Your task to perform on an android device: Google the capital of Venezuela Image 0: 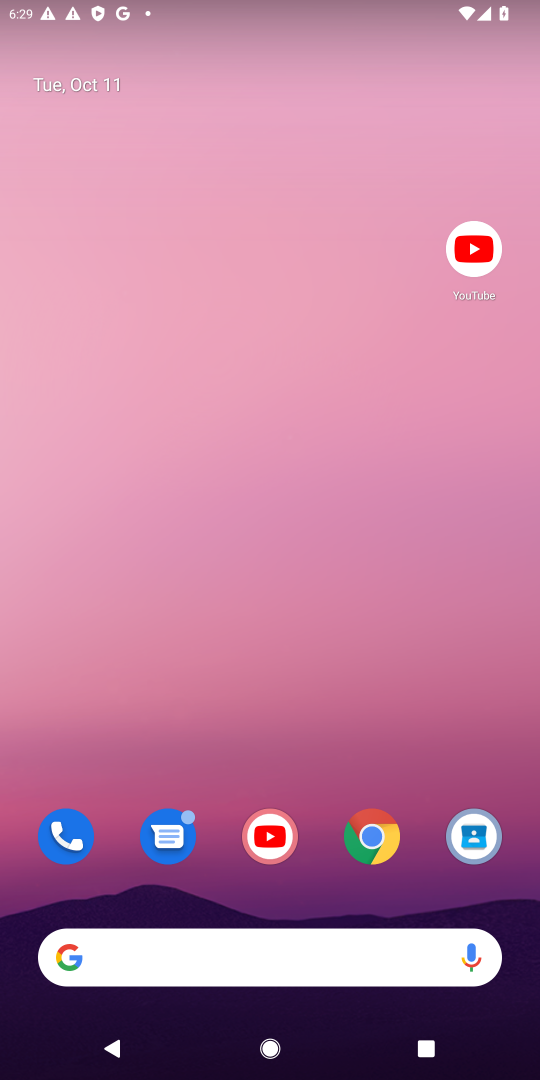
Step 0: click (375, 837)
Your task to perform on an android device: Google the capital of Venezuela Image 1: 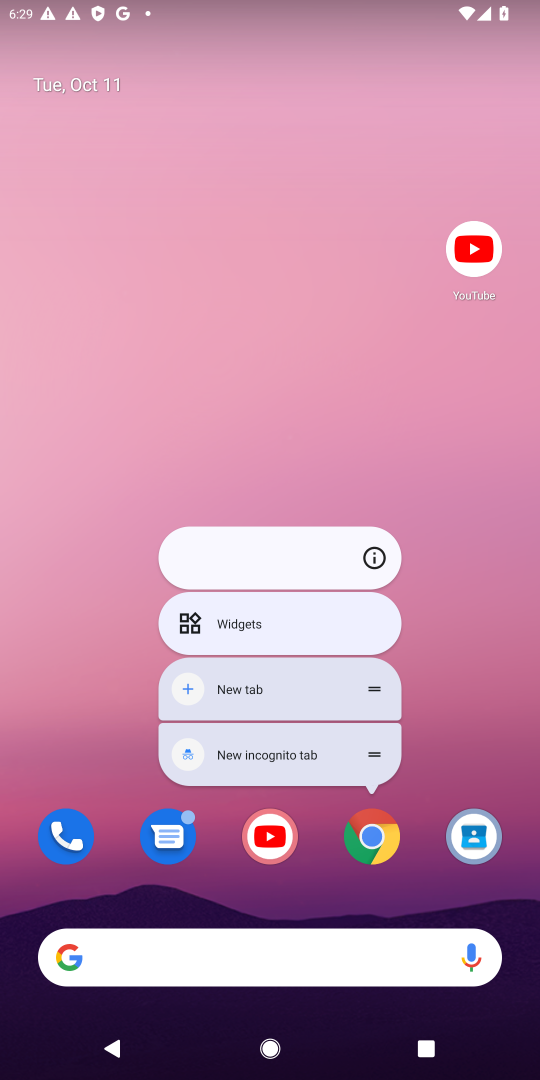
Step 1: click (365, 845)
Your task to perform on an android device: Google the capital of Venezuela Image 2: 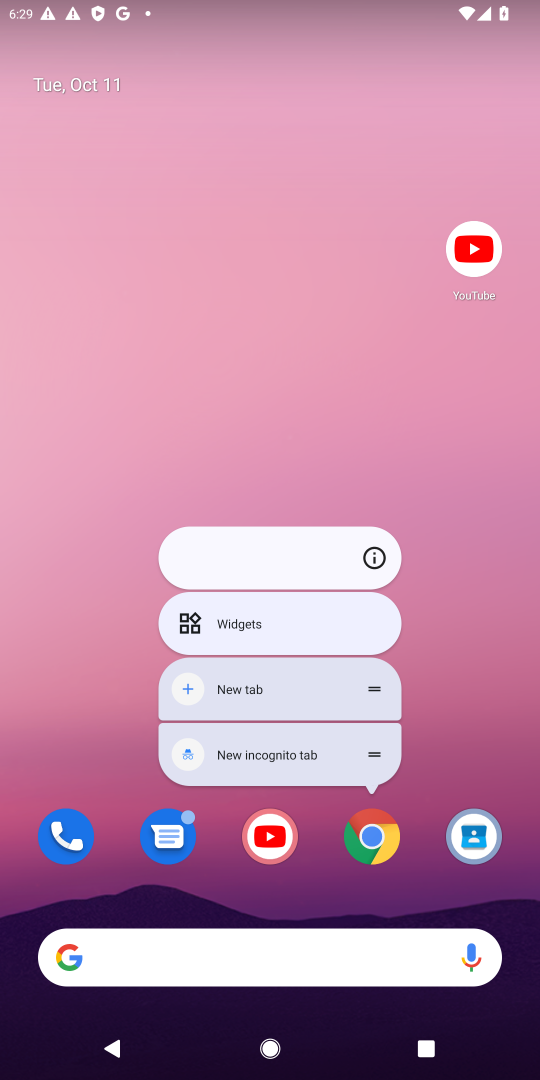
Step 2: click (384, 826)
Your task to perform on an android device: Google the capital of Venezuela Image 3: 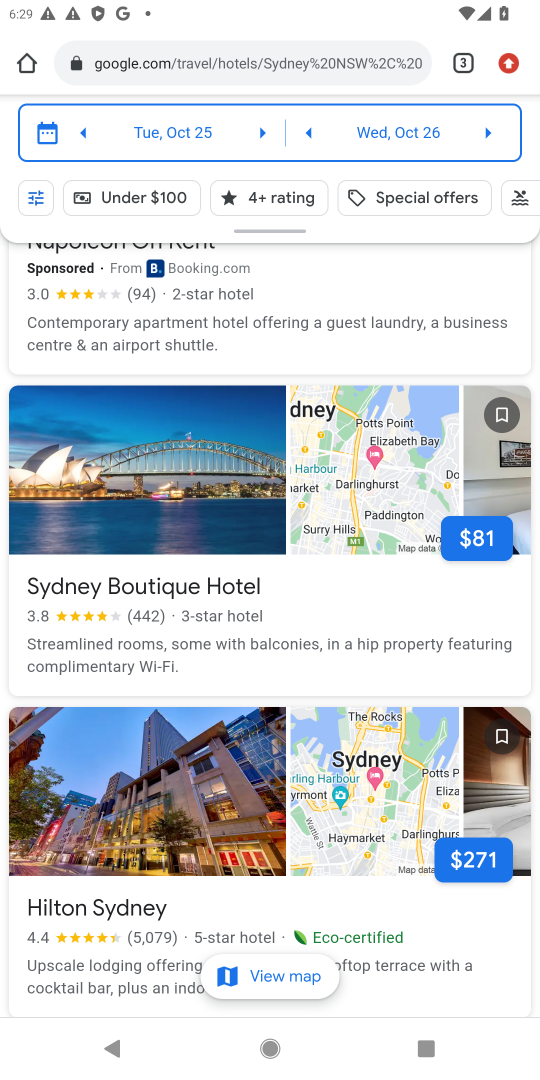
Step 3: click (326, 63)
Your task to perform on an android device: Google the capital of Venezuela Image 4: 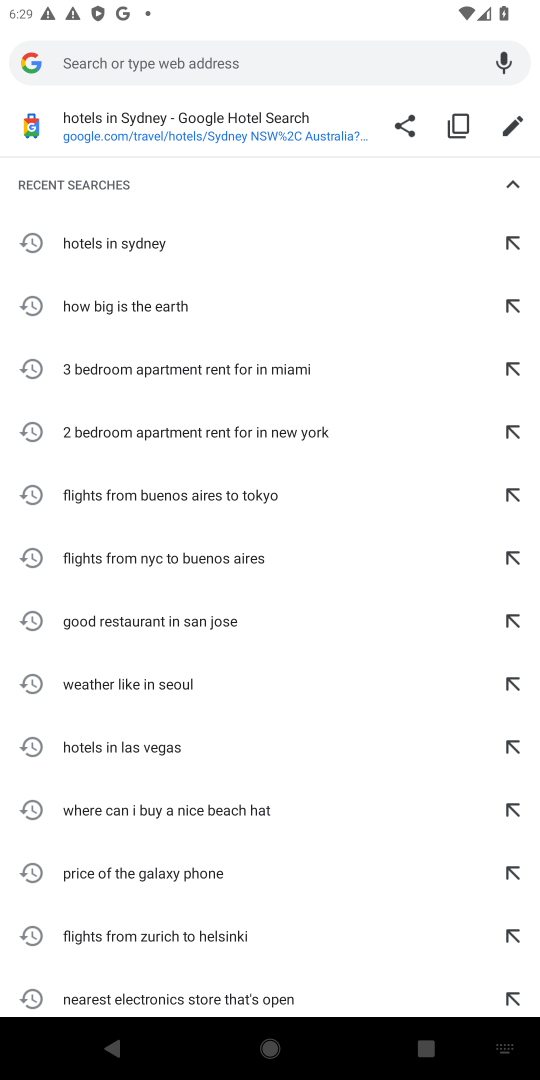
Step 4: type "capital of Venezuela"
Your task to perform on an android device: Google the capital of Venezuela Image 5: 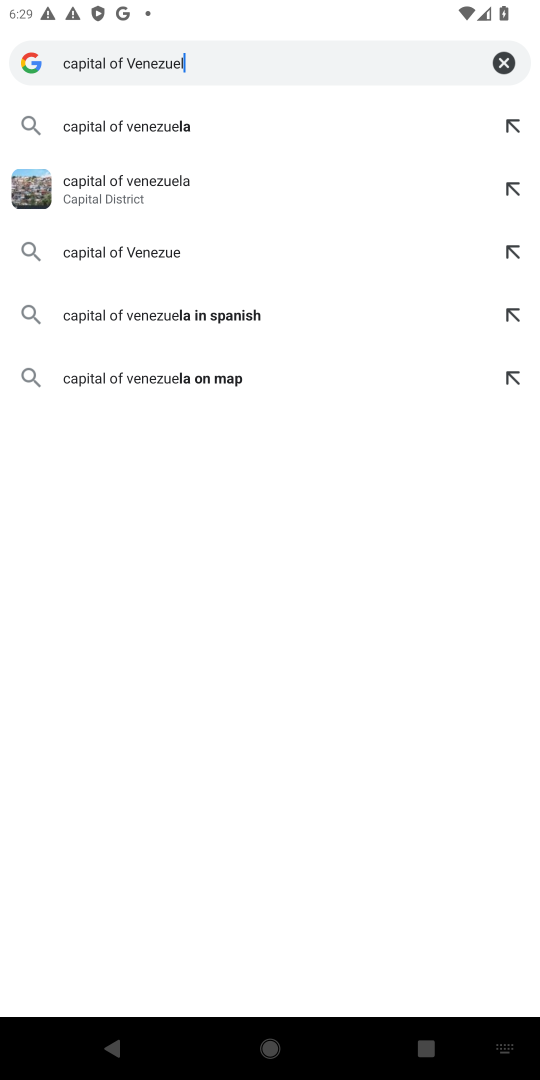
Step 5: press enter
Your task to perform on an android device: Google the capital of Venezuela Image 6: 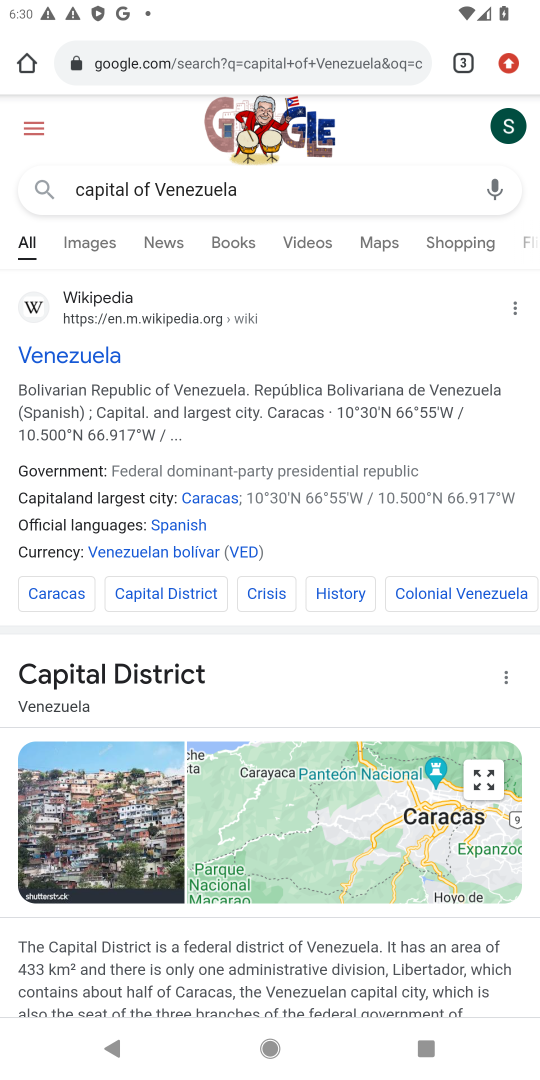
Step 6: task complete